Your task to perform on an android device: change the clock display to show seconds Image 0: 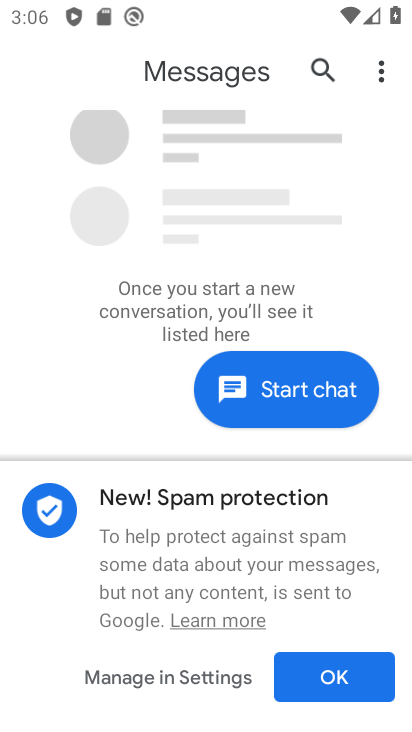
Step 0: press home button
Your task to perform on an android device: change the clock display to show seconds Image 1: 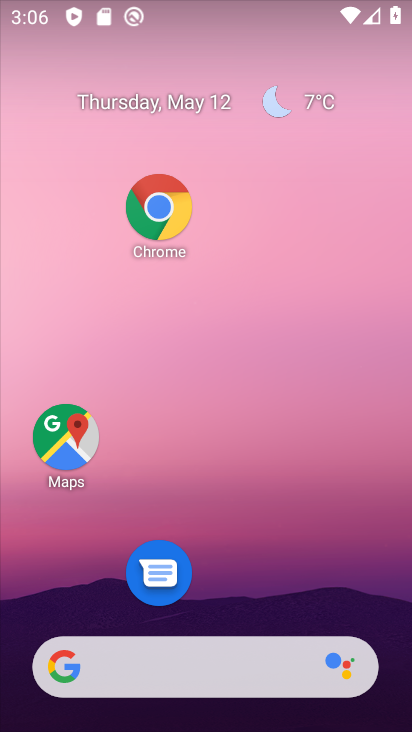
Step 1: drag from (226, 614) to (283, 64)
Your task to perform on an android device: change the clock display to show seconds Image 2: 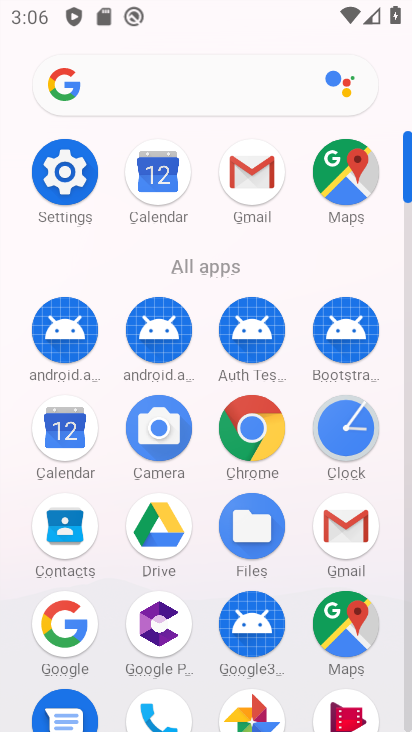
Step 2: click (355, 432)
Your task to perform on an android device: change the clock display to show seconds Image 3: 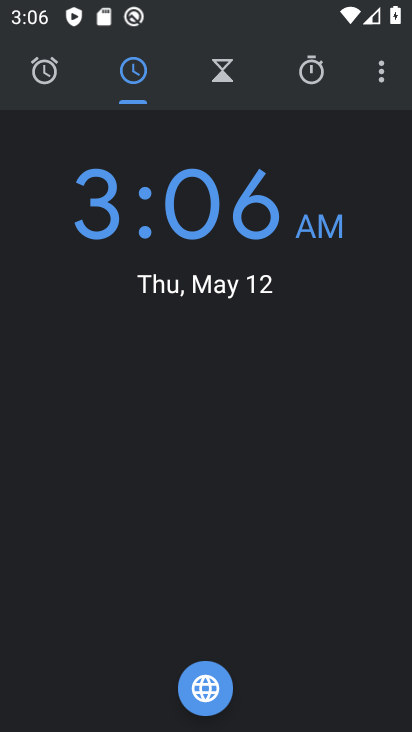
Step 3: click (371, 83)
Your task to perform on an android device: change the clock display to show seconds Image 4: 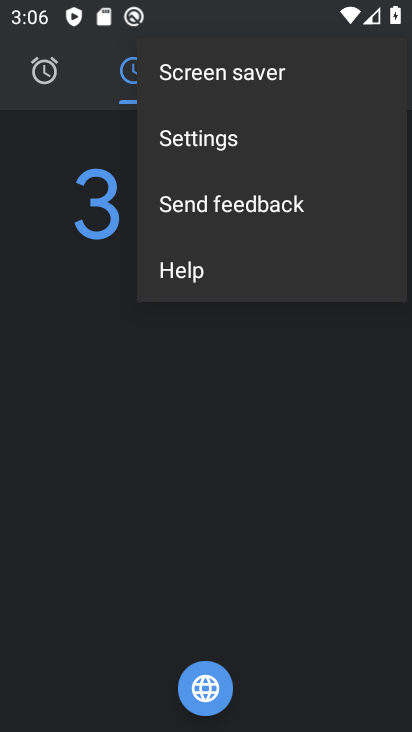
Step 4: click (188, 129)
Your task to perform on an android device: change the clock display to show seconds Image 5: 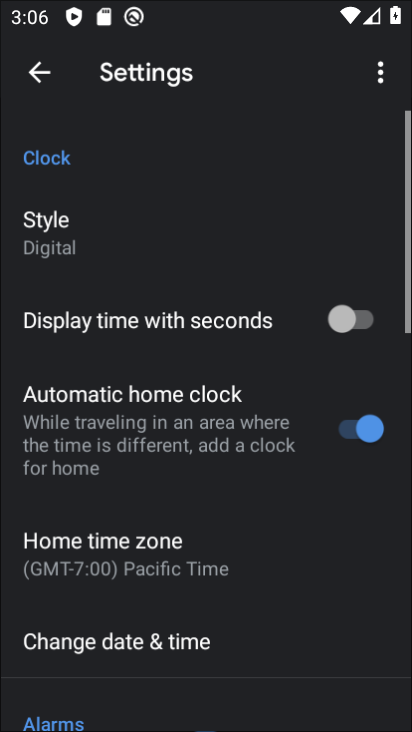
Step 5: click (187, 133)
Your task to perform on an android device: change the clock display to show seconds Image 6: 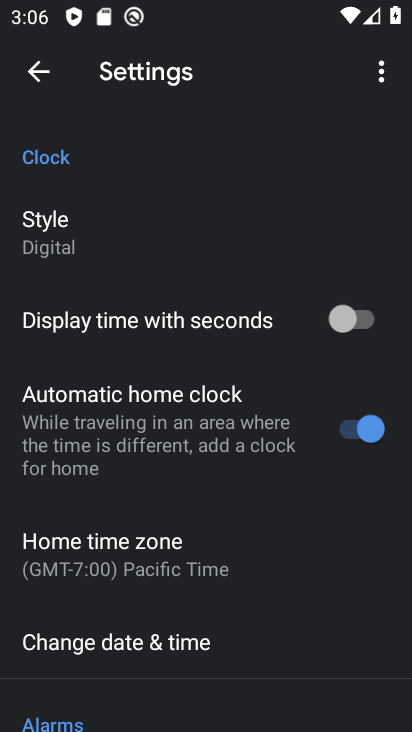
Step 6: click (88, 218)
Your task to perform on an android device: change the clock display to show seconds Image 7: 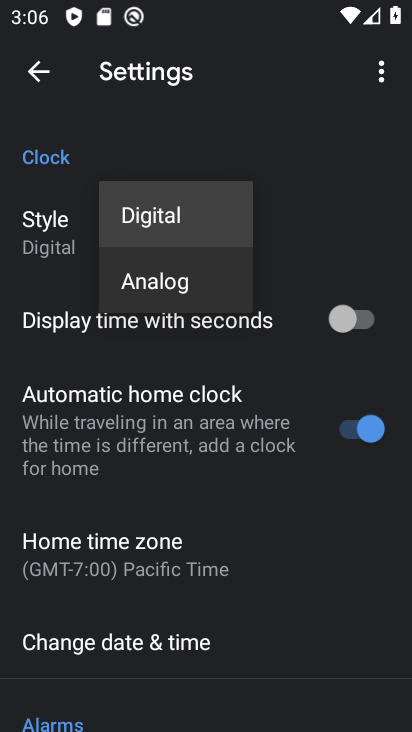
Step 7: click (124, 280)
Your task to perform on an android device: change the clock display to show seconds Image 8: 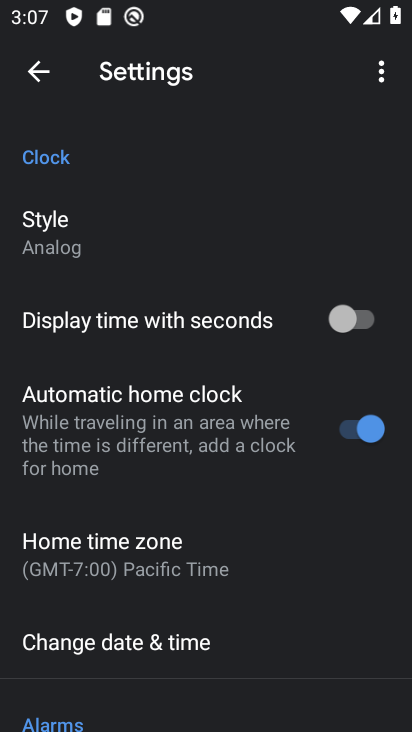
Step 8: click (373, 324)
Your task to perform on an android device: change the clock display to show seconds Image 9: 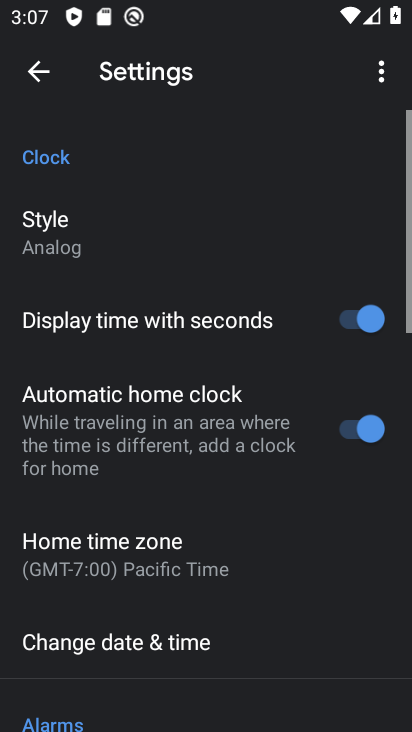
Step 9: task complete